Your task to perform on an android device: toggle priority inbox in the gmail app Image 0: 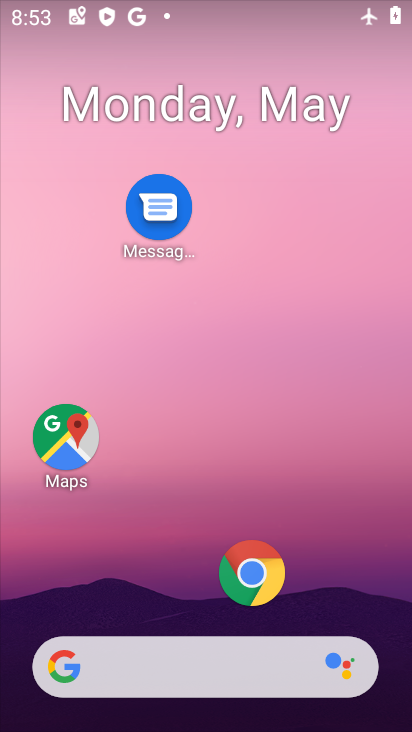
Step 0: drag from (188, 604) to (251, 75)
Your task to perform on an android device: toggle priority inbox in the gmail app Image 1: 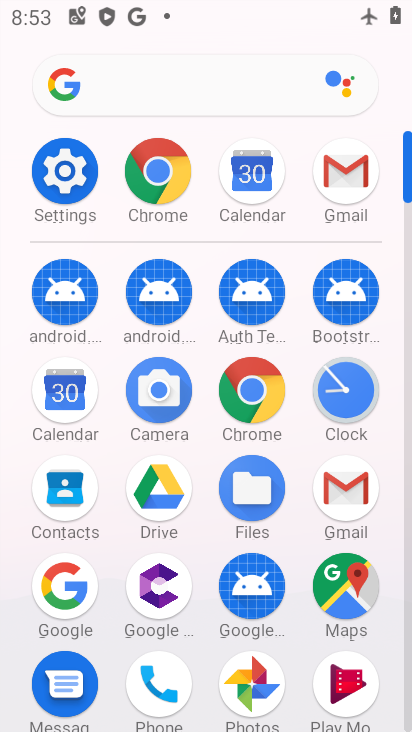
Step 1: click (347, 498)
Your task to perform on an android device: toggle priority inbox in the gmail app Image 2: 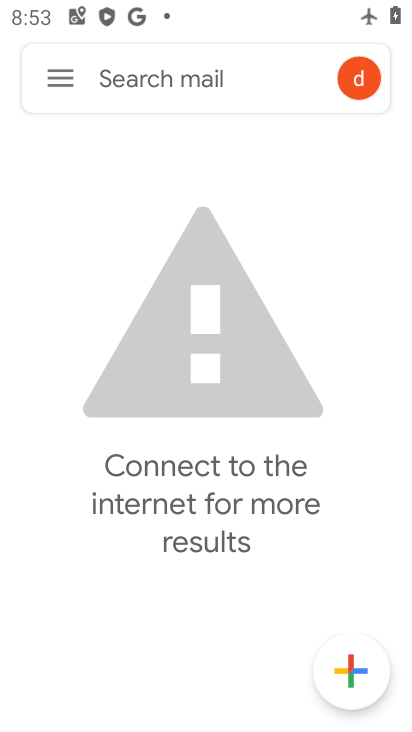
Step 2: click (75, 87)
Your task to perform on an android device: toggle priority inbox in the gmail app Image 3: 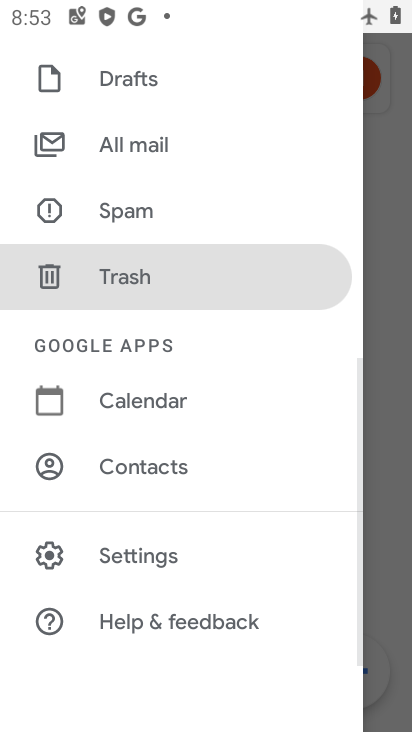
Step 3: click (104, 555)
Your task to perform on an android device: toggle priority inbox in the gmail app Image 4: 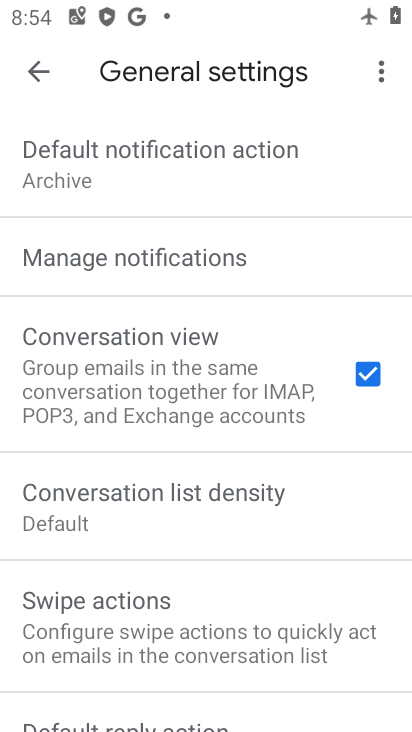
Step 4: click (47, 58)
Your task to perform on an android device: toggle priority inbox in the gmail app Image 5: 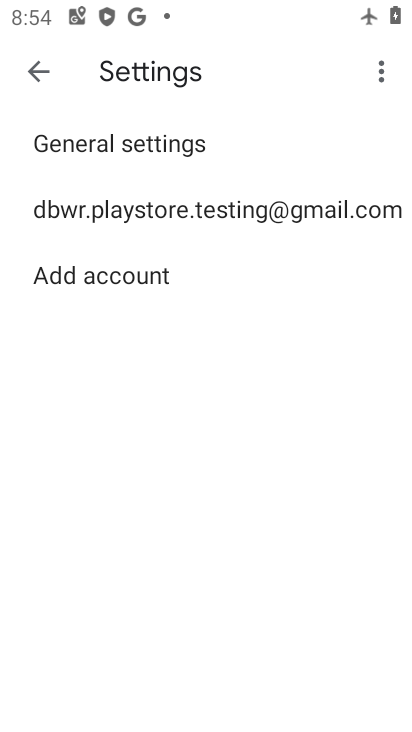
Step 5: click (141, 223)
Your task to perform on an android device: toggle priority inbox in the gmail app Image 6: 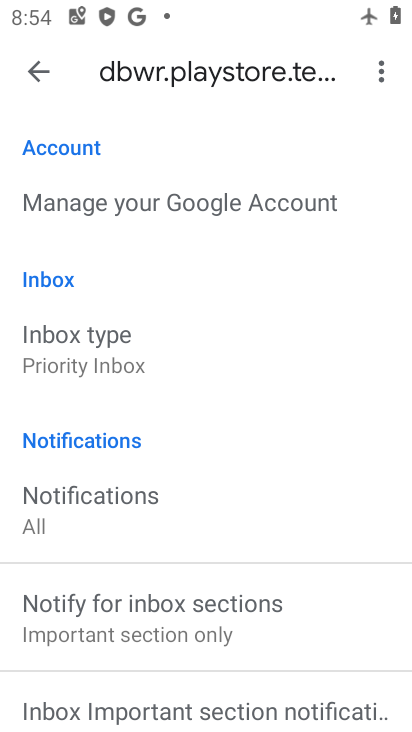
Step 6: click (135, 345)
Your task to perform on an android device: toggle priority inbox in the gmail app Image 7: 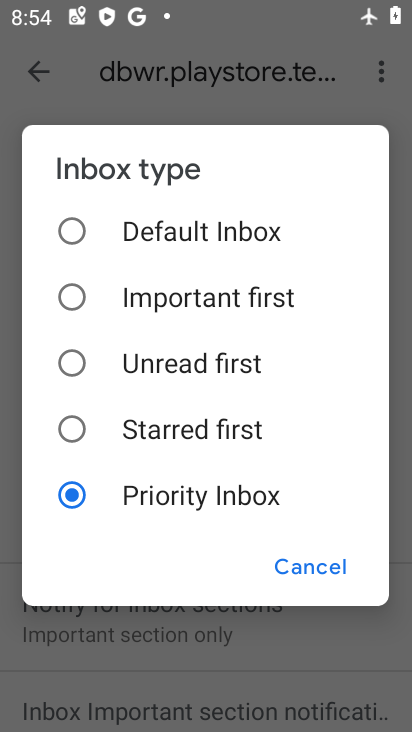
Step 7: click (163, 367)
Your task to perform on an android device: toggle priority inbox in the gmail app Image 8: 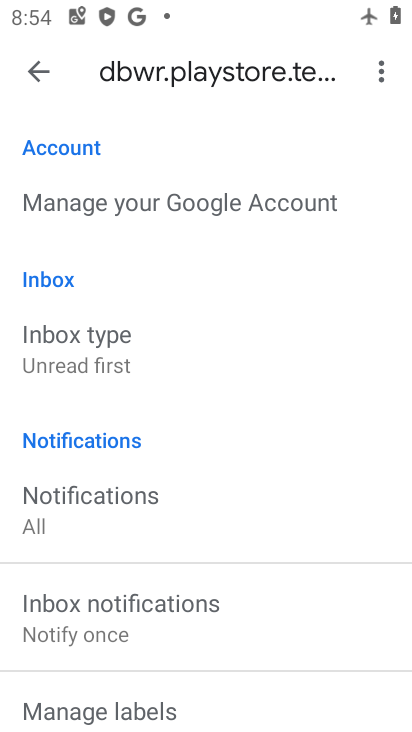
Step 8: task complete